Your task to perform on an android device: Turn off the flashlight Image 0: 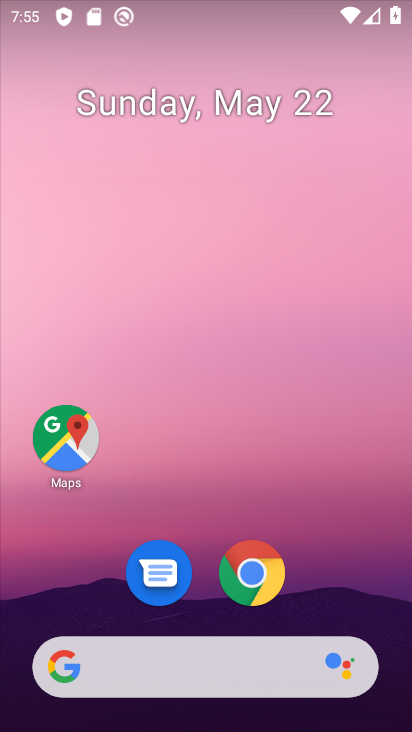
Step 0: drag from (207, 602) to (272, 40)
Your task to perform on an android device: Turn off the flashlight Image 1: 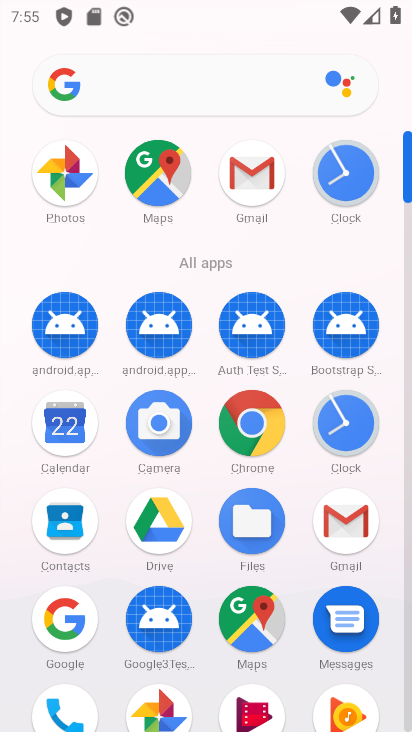
Step 1: drag from (202, 566) to (204, 111)
Your task to perform on an android device: Turn off the flashlight Image 2: 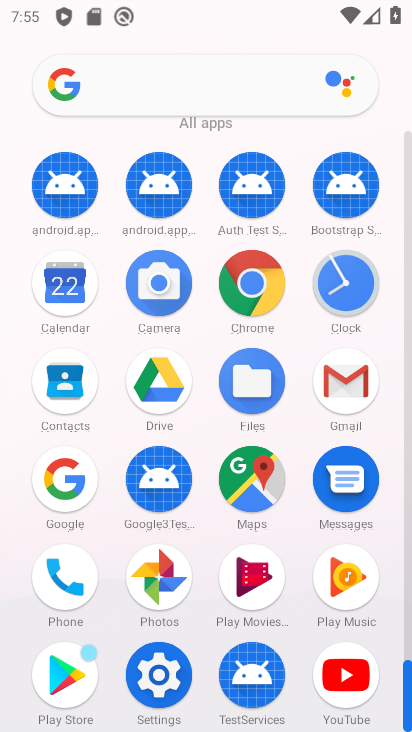
Step 2: click (166, 671)
Your task to perform on an android device: Turn off the flashlight Image 3: 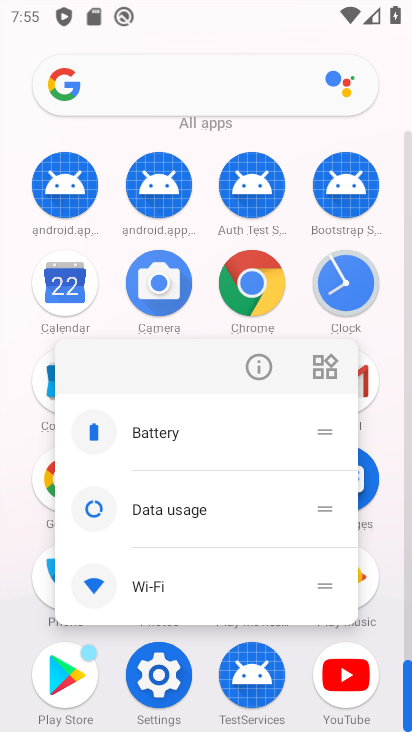
Step 3: click (267, 367)
Your task to perform on an android device: Turn off the flashlight Image 4: 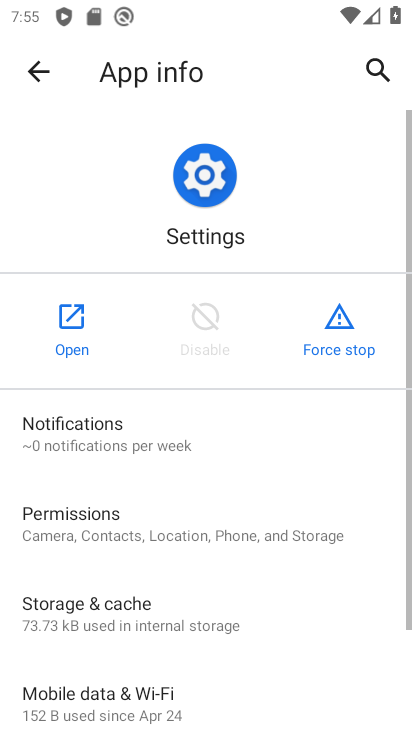
Step 4: click (76, 328)
Your task to perform on an android device: Turn off the flashlight Image 5: 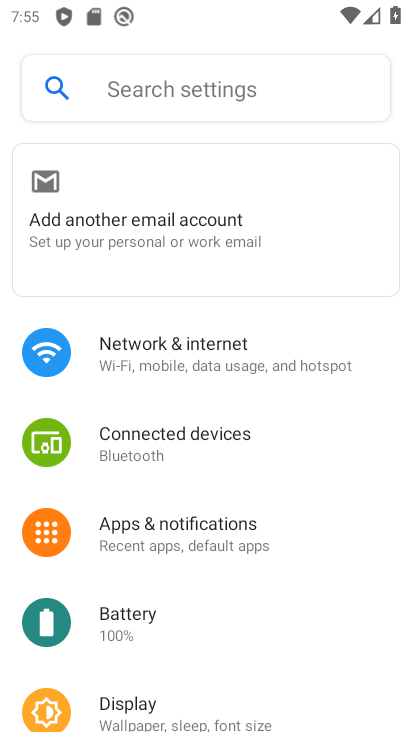
Step 5: click (103, 85)
Your task to perform on an android device: Turn off the flashlight Image 6: 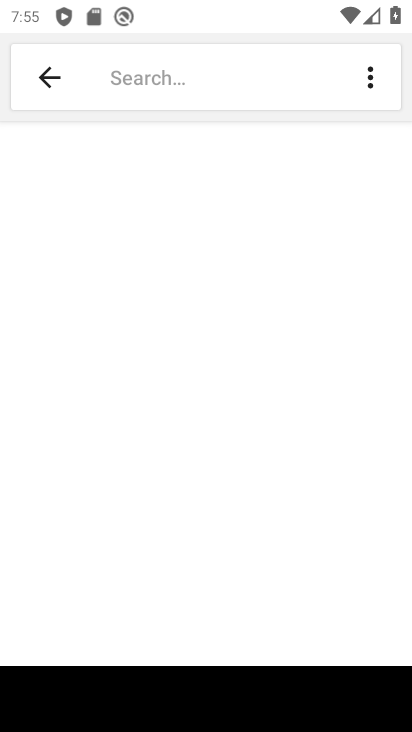
Step 6: type "flashlight"
Your task to perform on an android device: Turn off the flashlight Image 7: 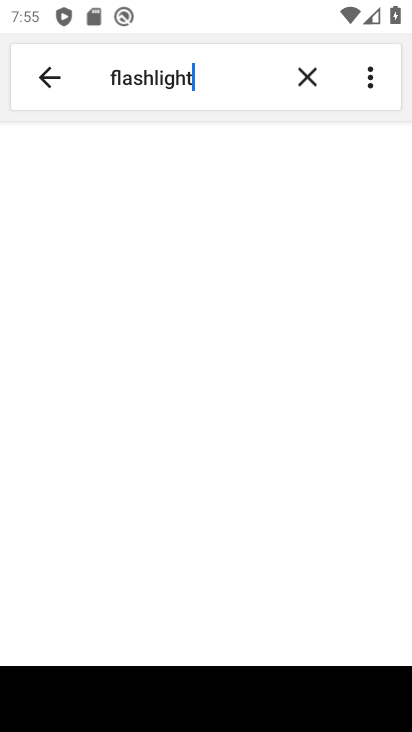
Step 7: click (194, 193)
Your task to perform on an android device: Turn off the flashlight Image 8: 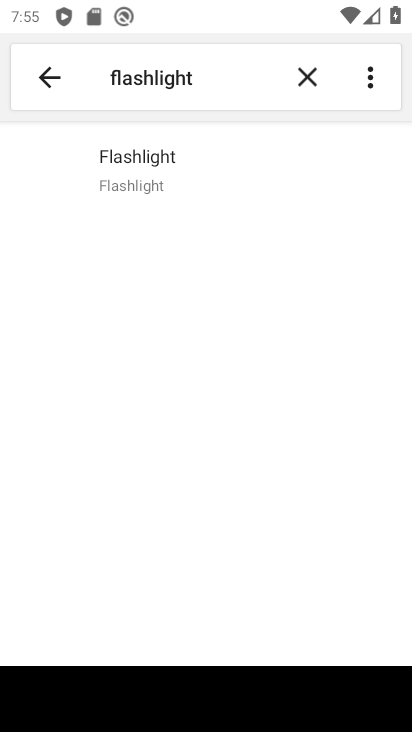
Step 8: click (188, 183)
Your task to perform on an android device: Turn off the flashlight Image 9: 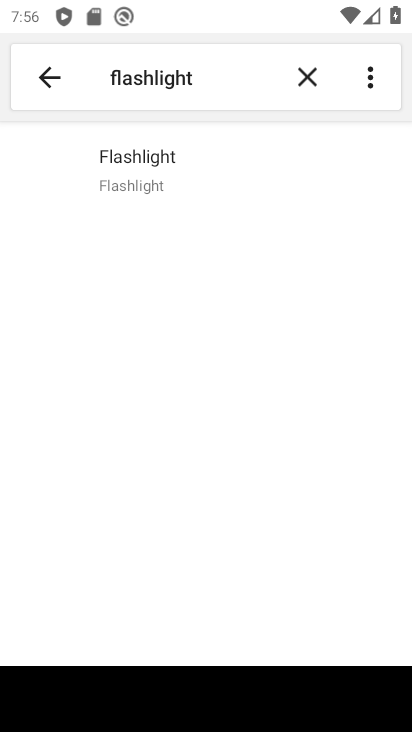
Step 9: task complete